Your task to perform on an android device: Go to privacy settings Image 0: 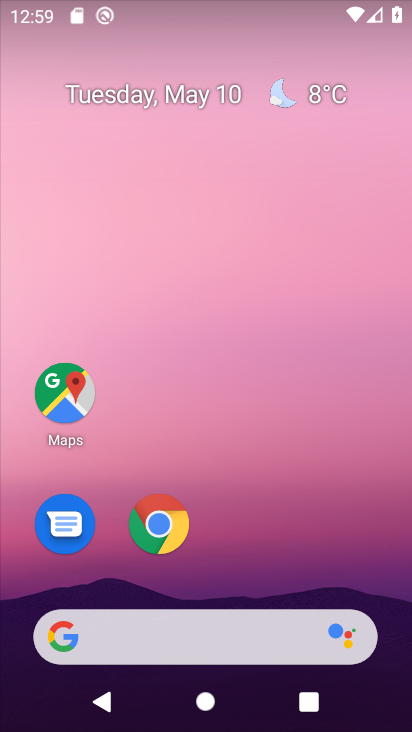
Step 0: drag from (238, 505) to (196, 29)
Your task to perform on an android device: Go to privacy settings Image 1: 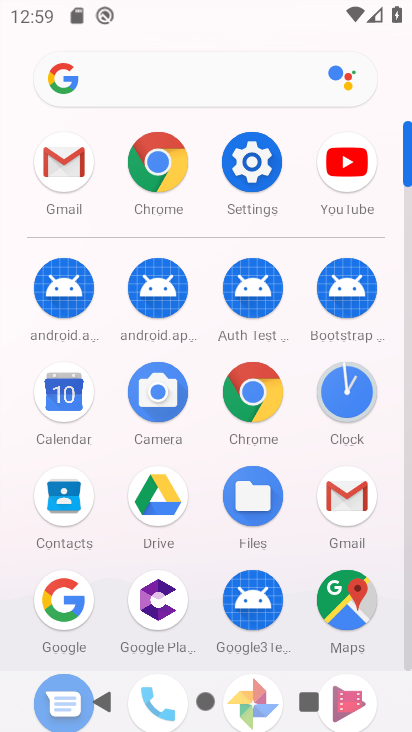
Step 1: click (260, 162)
Your task to perform on an android device: Go to privacy settings Image 2: 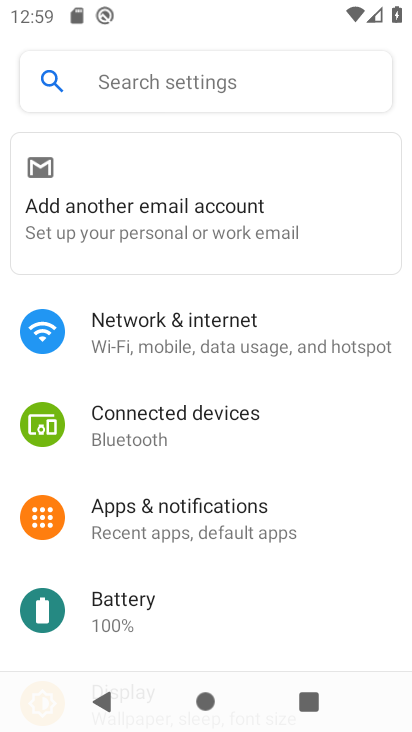
Step 2: drag from (251, 582) to (231, 134)
Your task to perform on an android device: Go to privacy settings Image 3: 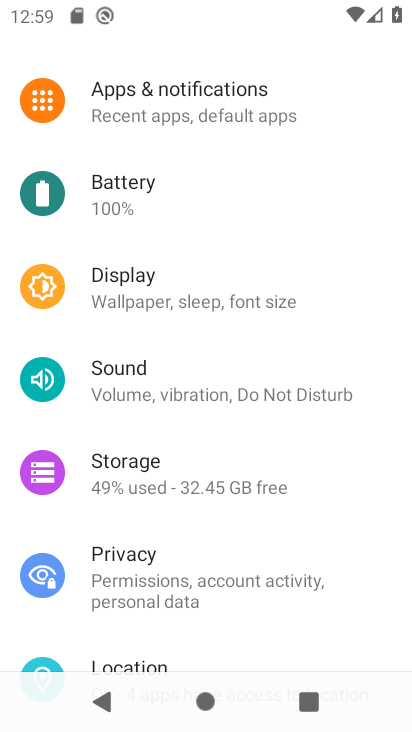
Step 3: drag from (215, 566) to (203, 531)
Your task to perform on an android device: Go to privacy settings Image 4: 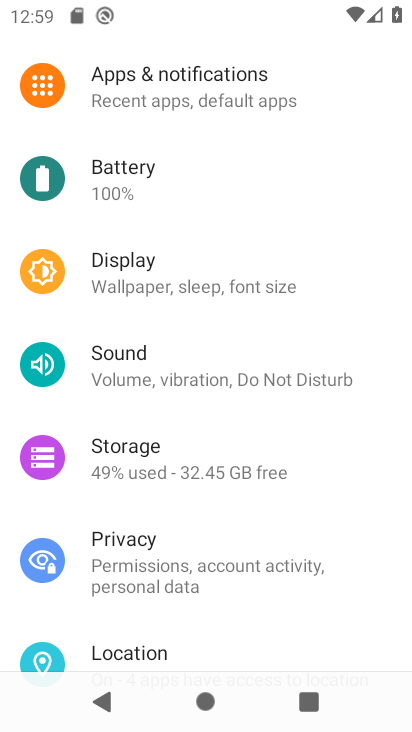
Step 4: click (220, 567)
Your task to perform on an android device: Go to privacy settings Image 5: 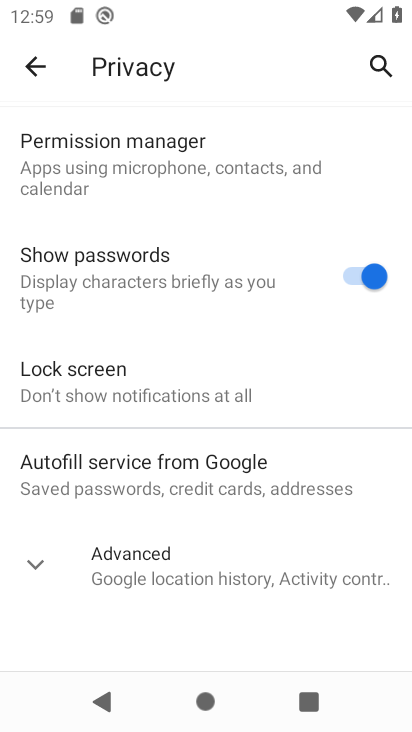
Step 5: task complete